Your task to perform on an android device: change text size in settings app Image 0: 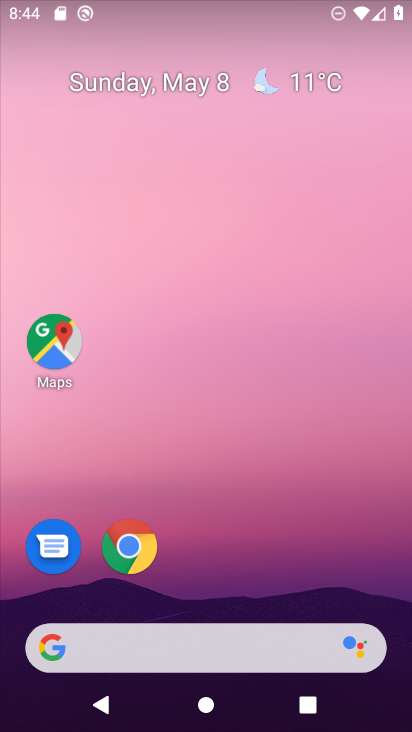
Step 0: drag from (233, 527) to (190, 48)
Your task to perform on an android device: change text size in settings app Image 1: 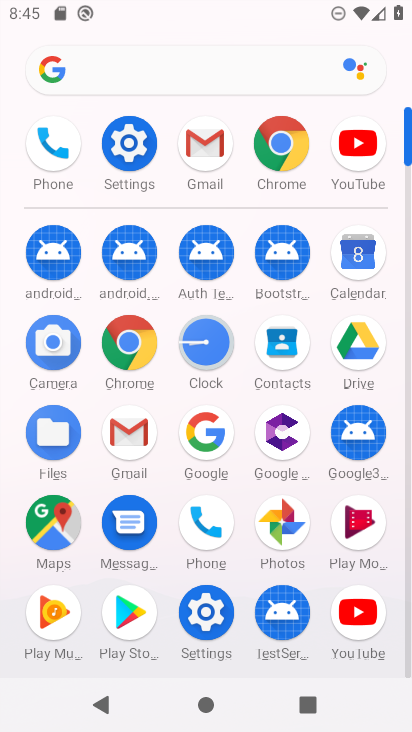
Step 1: click (135, 136)
Your task to perform on an android device: change text size in settings app Image 2: 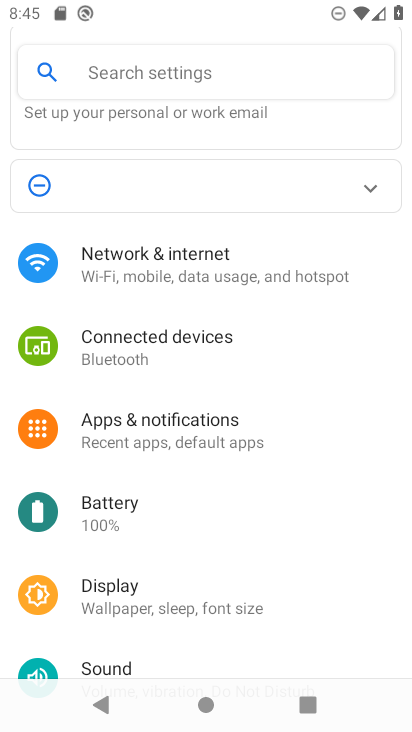
Step 2: click (203, 602)
Your task to perform on an android device: change text size in settings app Image 3: 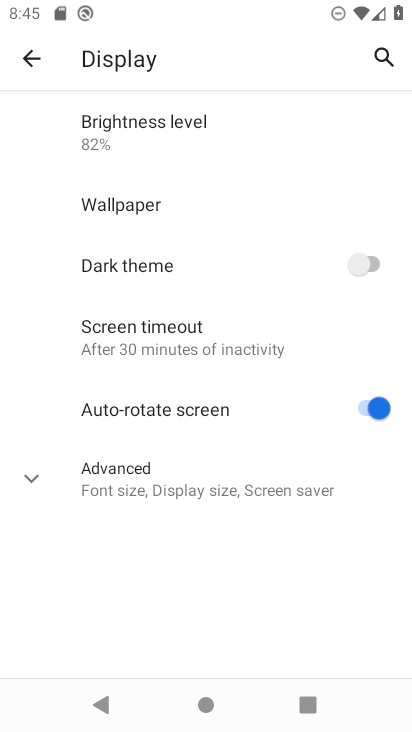
Step 3: click (29, 474)
Your task to perform on an android device: change text size in settings app Image 4: 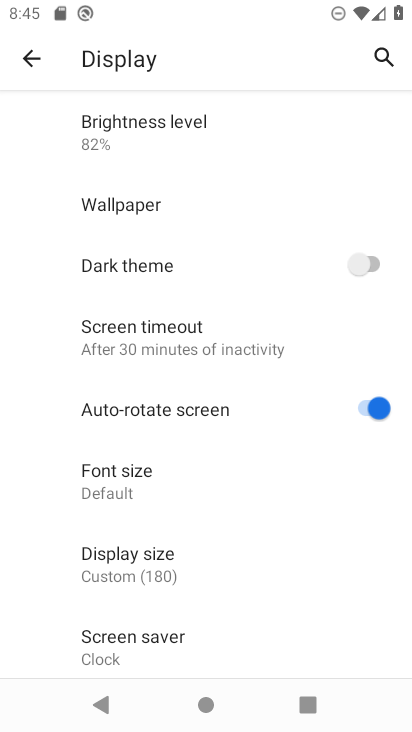
Step 4: click (125, 488)
Your task to perform on an android device: change text size in settings app Image 5: 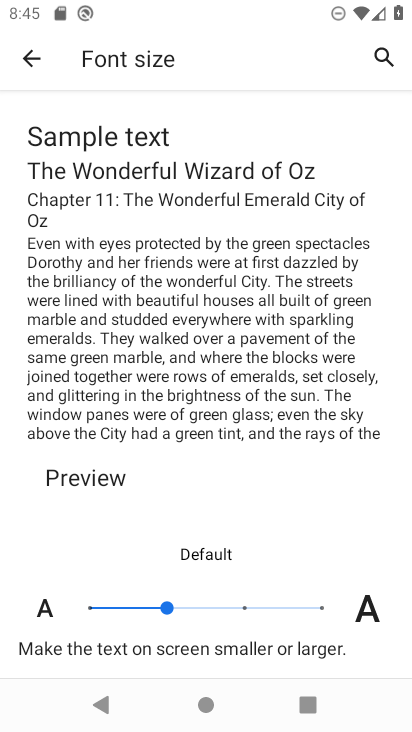
Step 5: click (242, 605)
Your task to perform on an android device: change text size in settings app Image 6: 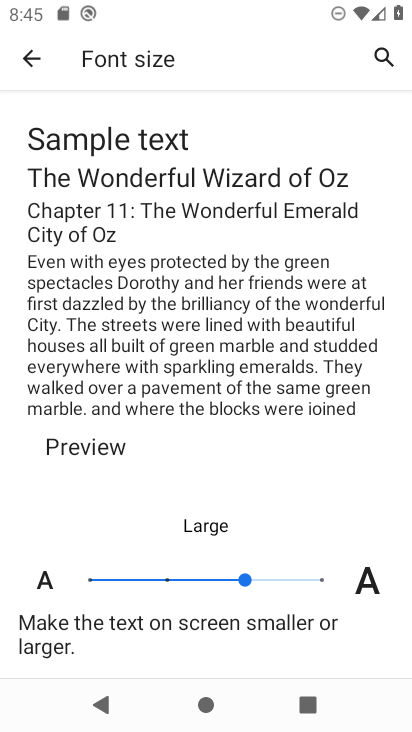
Step 6: task complete